Your task to perform on an android device: open chrome and create a bookmark for the current page Image 0: 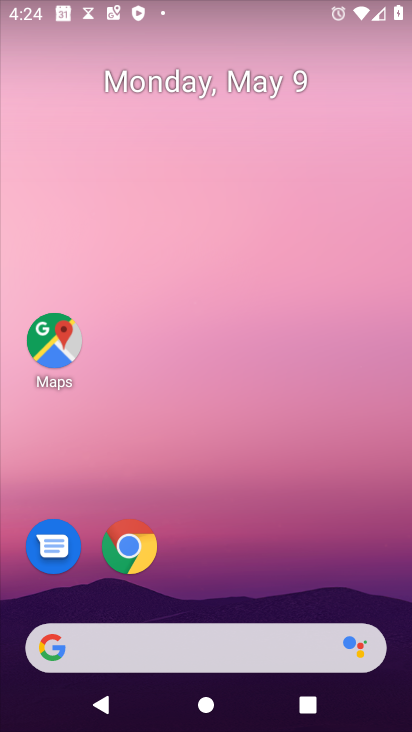
Step 0: drag from (277, 549) to (237, 64)
Your task to perform on an android device: open chrome and create a bookmark for the current page Image 1: 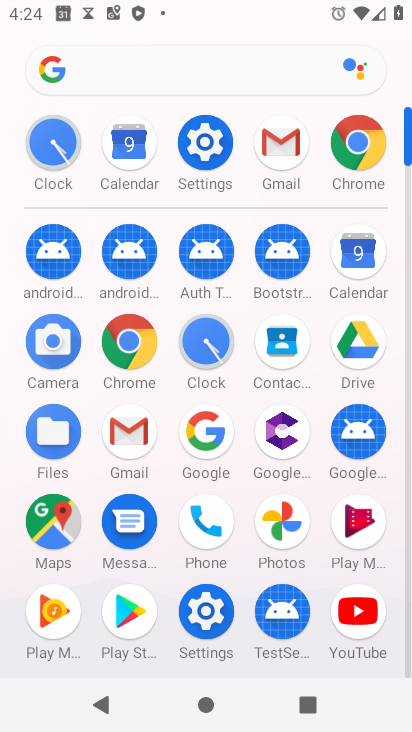
Step 1: click (366, 152)
Your task to perform on an android device: open chrome and create a bookmark for the current page Image 2: 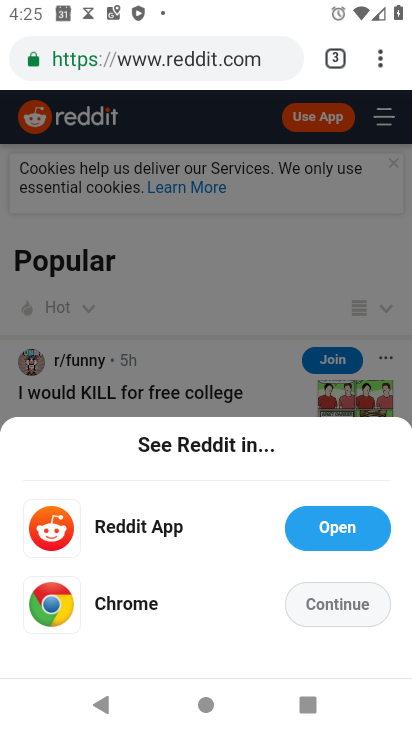
Step 2: task complete